Your task to perform on an android device: Open the calendar app, open the side menu, and click the "Day" option Image 0: 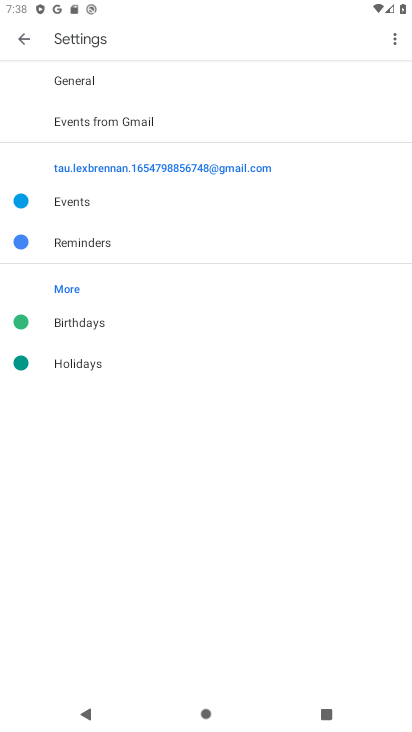
Step 0: press home button
Your task to perform on an android device: Open the calendar app, open the side menu, and click the "Day" option Image 1: 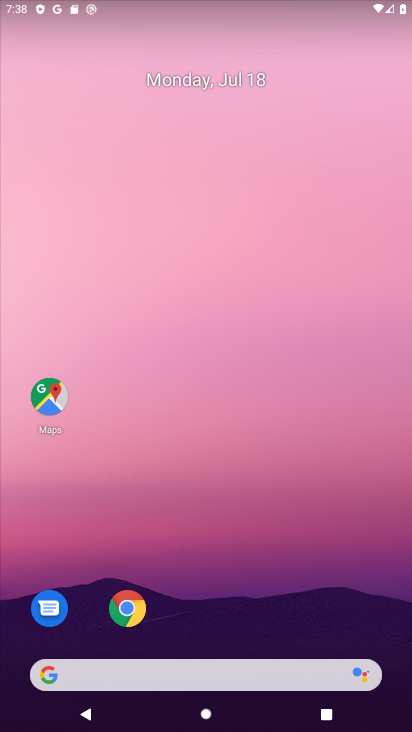
Step 1: drag from (187, 551) to (220, 171)
Your task to perform on an android device: Open the calendar app, open the side menu, and click the "Day" option Image 2: 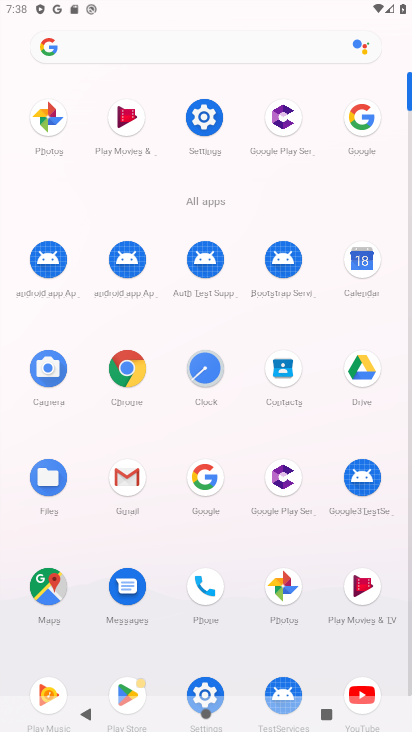
Step 2: click (358, 258)
Your task to perform on an android device: Open the calendar app, open the side menu, and click the "Day" option Image 3: 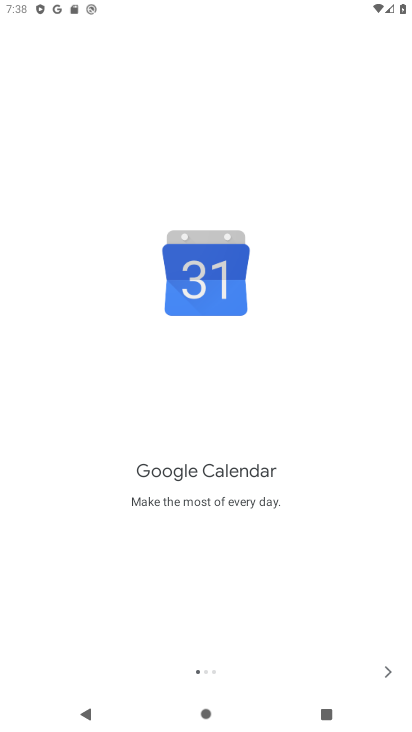
Step 3: click (394, 666)
Your task to perform on an android device: Open the calendar app, open the side menu, and click the "Day" option Image 4: 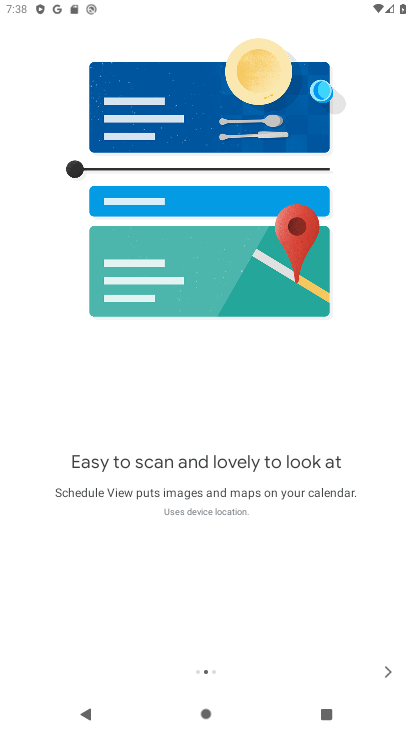
Step 4: click (394, 666)
Your task to perform on an android device: Open the calendar app, open the side menu, and click the "Day" option Image 5: 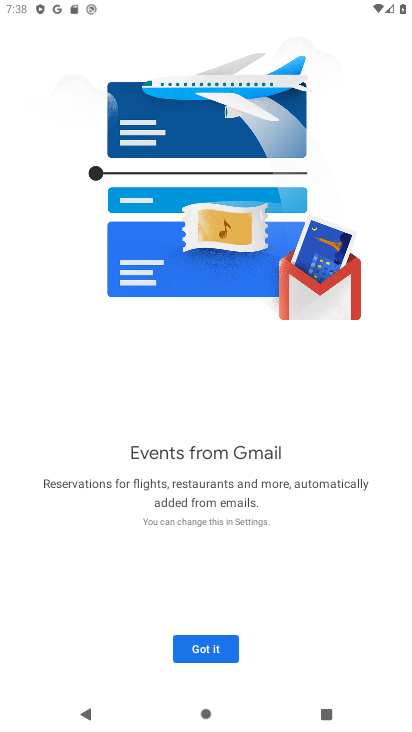
Step 5: click (201, 651)
Your task to perform on an android device: Open the calendar app, open the side menu, and click the "Day" option Image 6: 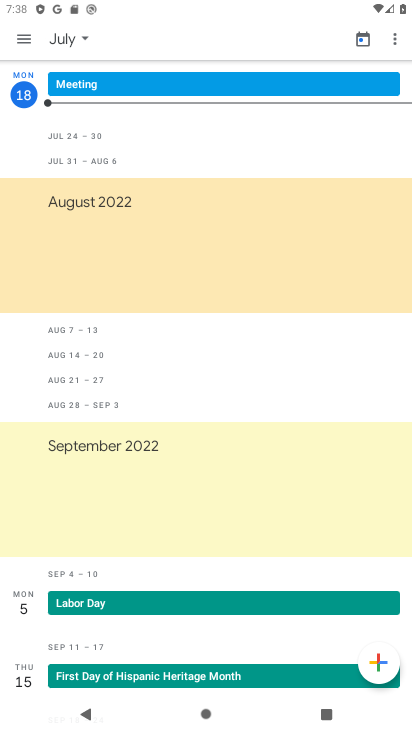
Step 6: click (23, 35)
Your task to perform on an android device: Open the calendar app, open the side menu, and click the "Day" option Image 7: 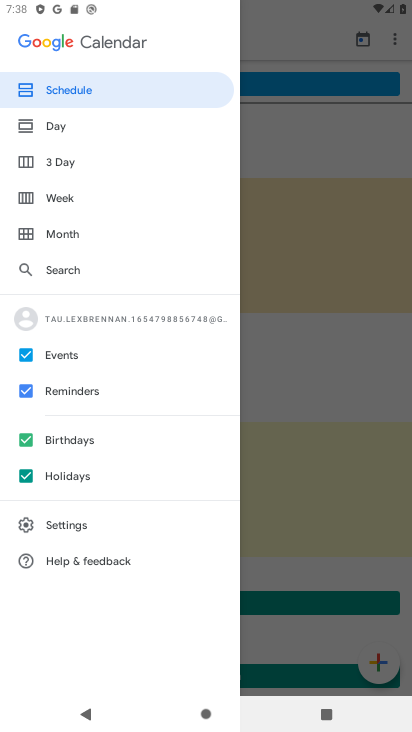
Step 7: click (63, 124)
Your task to perform on an android device: Open the calendar app, open the side menu, and click the "Day" option Image 8: 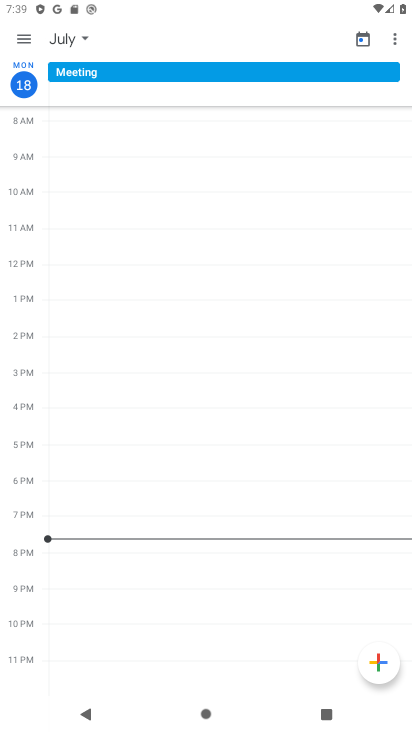
Step 8: task complete